Your task to perform on an android device: What is the news today? Image 0: 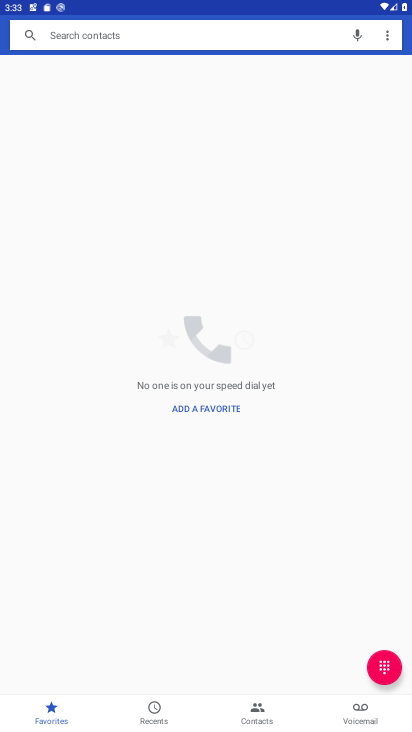
Step 0: press home button
Your task to perform on an android device: What is the news today? Image 1: 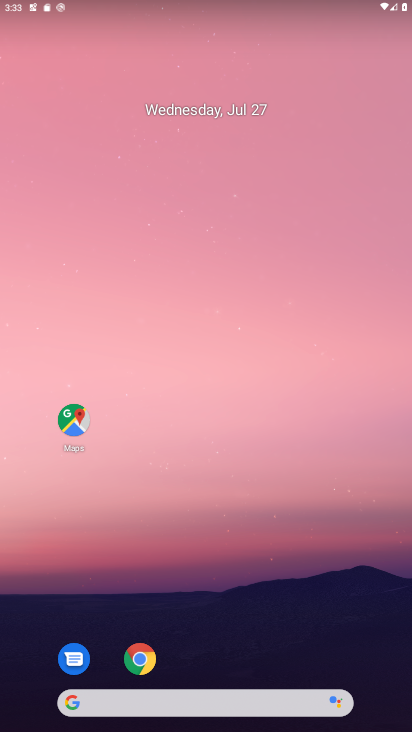
Step 1: drag from (255, 651) to (179, 65)
Your task to perform on an android device: What is the news today? Image 2: 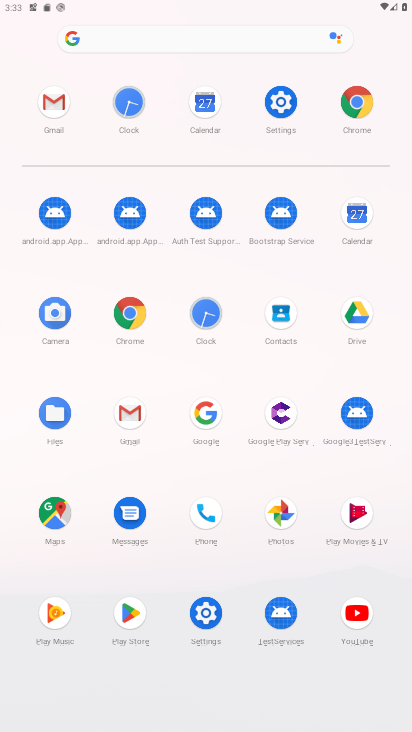
Step 2: click (356, 87)
Your task to perform on an android device: What is the news today? Image 3: 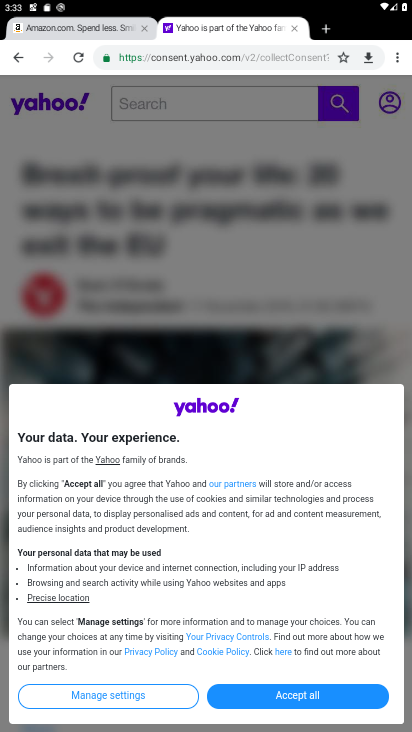
Step 3: click (11, 60)
Your task to perform on an android device: What is the news today? Image 4: 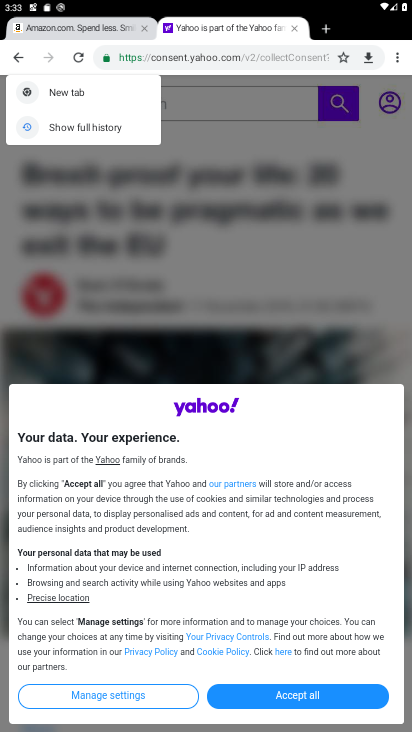
Step 4: click (13, 53)
Your task to perform on an android device: What is the news today? Image 5: 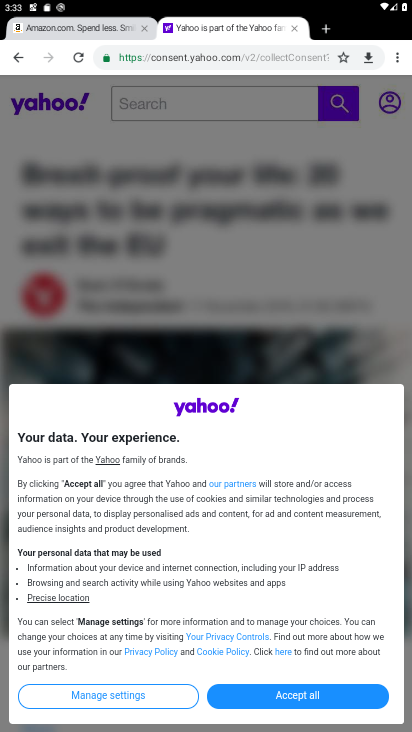
Step 5: click (16, 56)
Your task to perform on an android device: What is the news today? Image 6: 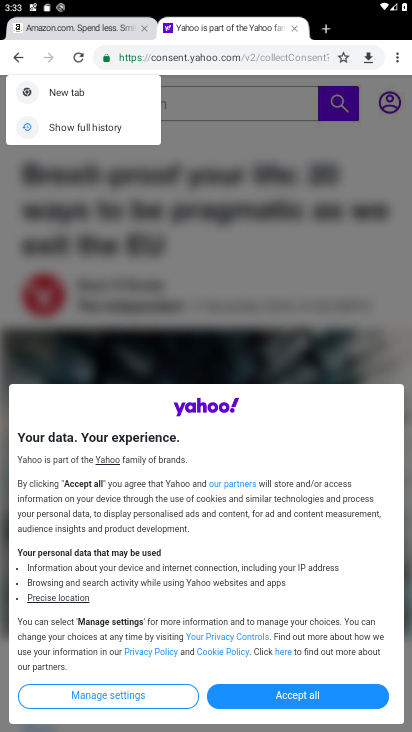
Step 6: click (13, 57)
Your task to perform on an android device: What is the news today? Image 7: 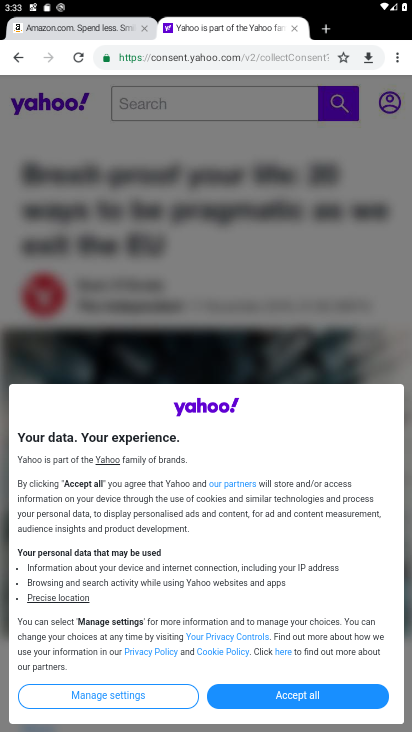
Step 7: task complete